Your task to perform on an android device: Open Google Chrome and click the shortcut for Amazon.com Image 0: 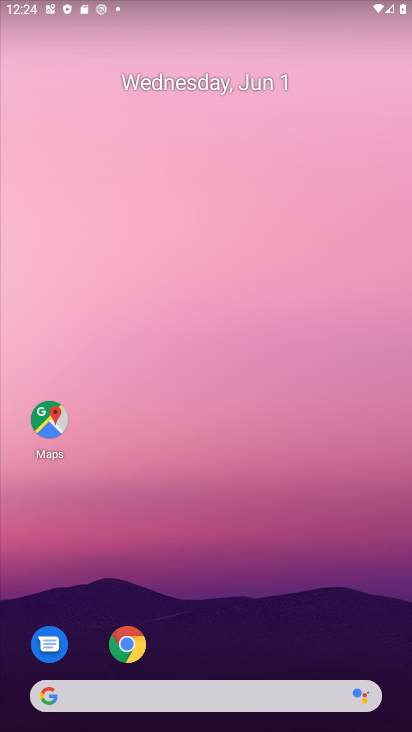
Step 0: drag from (260, 622) to (283, 164)
Your task to perform on an android device: Open Google Chrome and click the shortcut for Amazon.com Image 1: 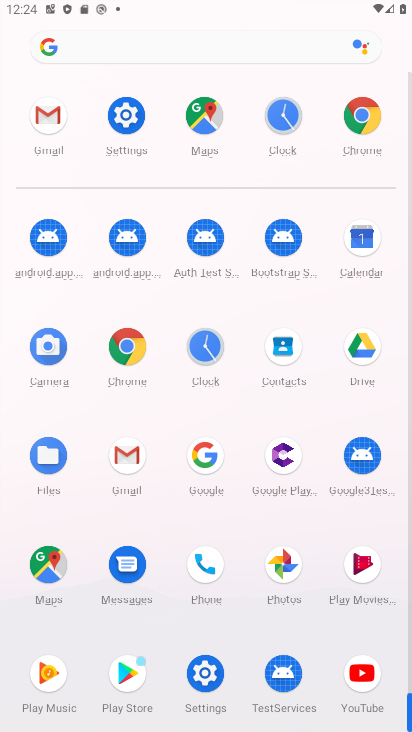
Step 1: click (378, 124)
Your task to perform on an android device: Open Google Chrome and click the shortcut for Amazon.com Image 2: 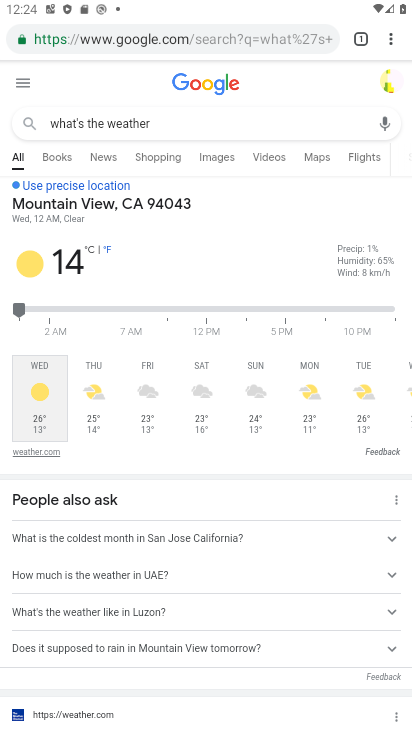
Step 2: click (354, 33)
Your task to perform on an android device: Open Google Chrome and click the shortcut for Amazon.com Image 3: 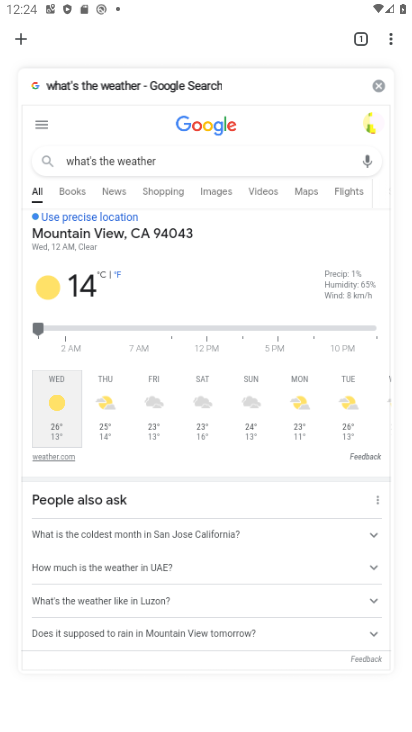
Step 3: click (32, 40)
Your task to perform on an android device: Open Google Chrome and click the shortcut for Amazon.com Image 4: 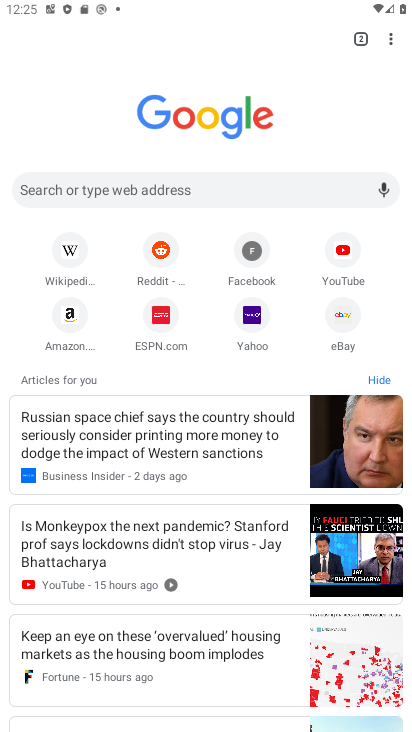
Step 4: click (67, 319)
Your task to perform on an android device: Open Google Chrome and click the shortcut for Amazon.com Image 5: 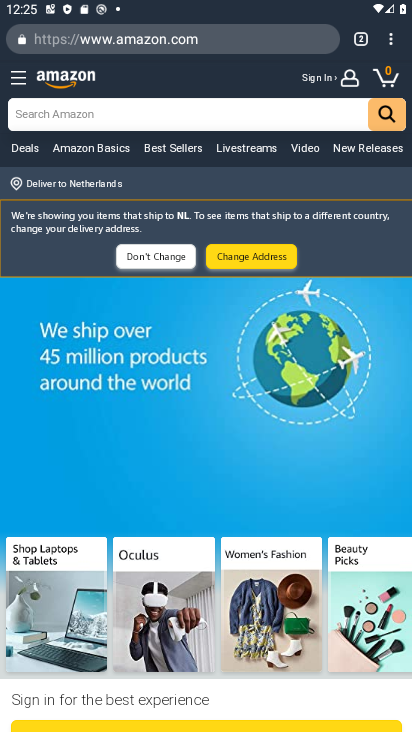
Step 5: task complete